Your task to perform on an android device: open sync settings in chrome Image 0: 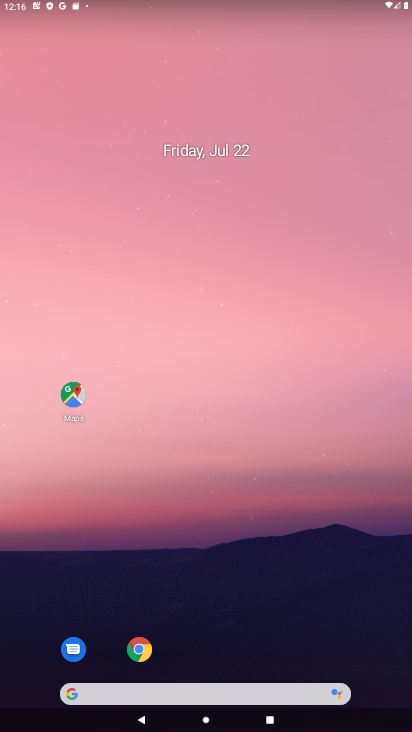
Step 0: click (140, 652)
Your task to perform on an android device: open sync settings in chrome Image 1: 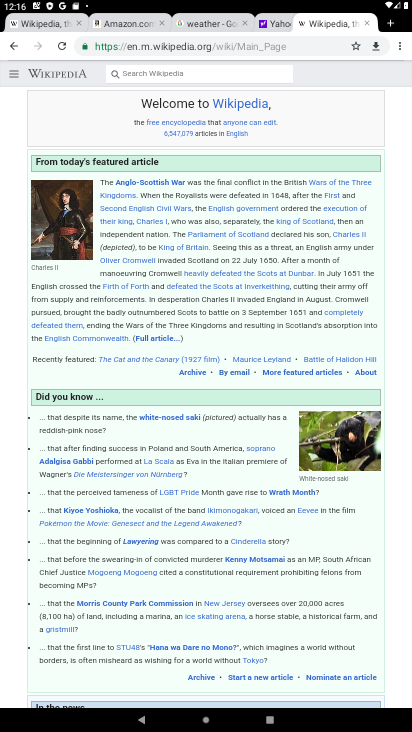
Step 1: click (402, 49)
Your task to perform on an android device: open sync settings in chrome Image 2: 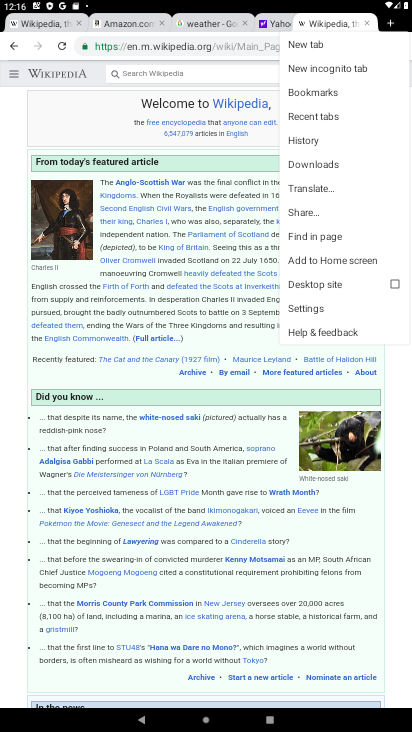
Step 2: click (305, 304)
Your task to perform on an android device: open sync settings in chrome Image 3: 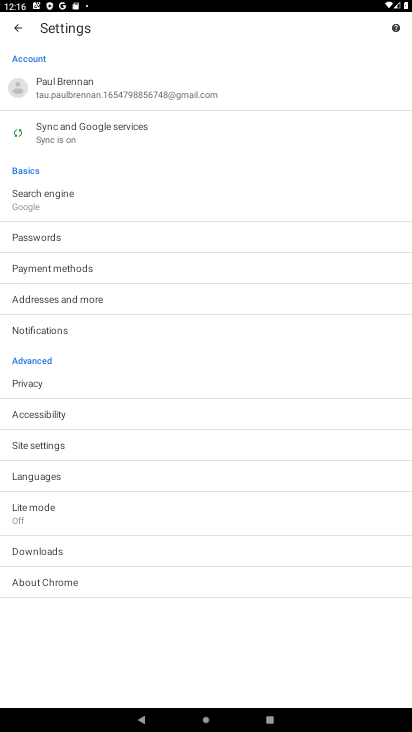
Step 3: click (36, 444)
Your task to perform on an android device: open sync settings in chrome Image 4: 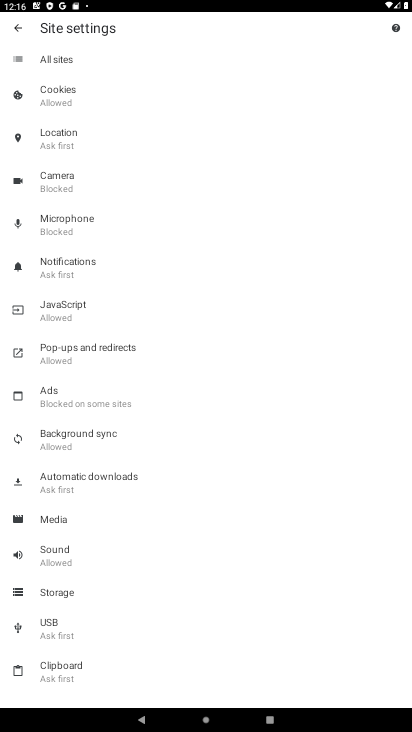
Step 4: click (59, 438)
Your task to perform on an android device: open sync settings in chrome Image 5: 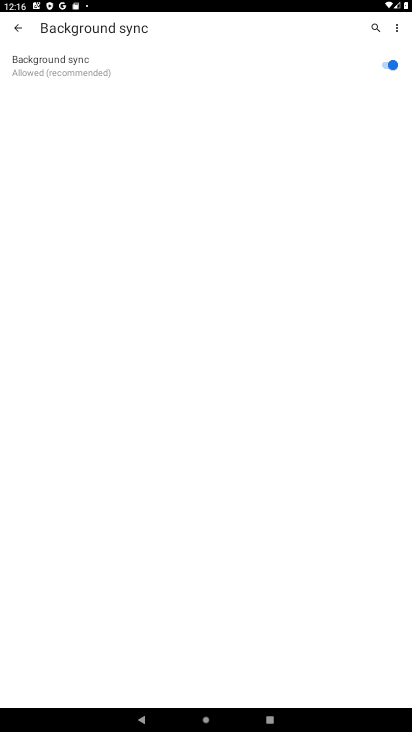
Step 5: task complete